Your task to perform on an android device: Search for Italian restaurants on Maps Image 0: 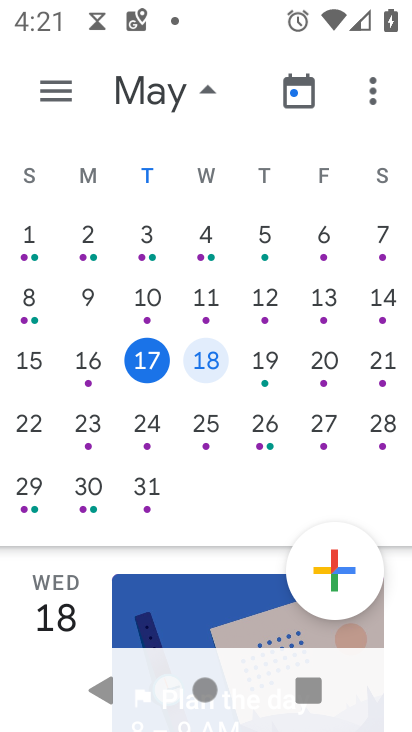
Step 0: press home button
Your task to perform on an android device: Search for Italian restaurants on Maps Image 1: 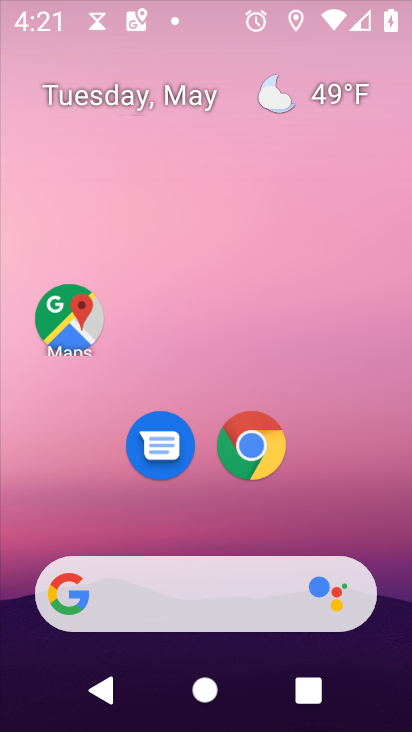
Step 1: drag from (279, 557) to (283, 44)
Your task to perform on an android device: Search for Italian restaurants on Maps Image 2: 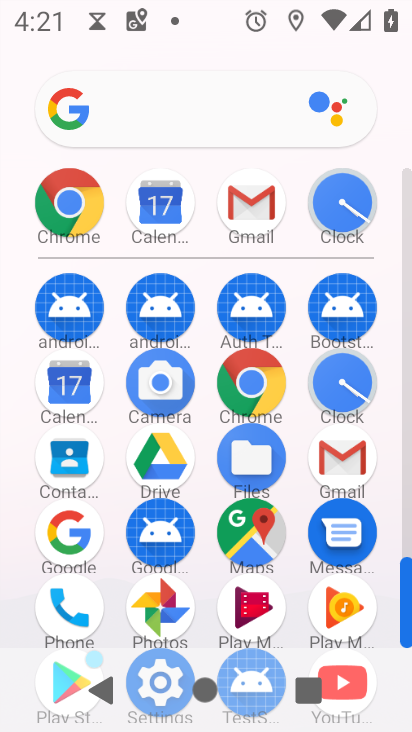
Step 2: click (241, 537)
Your task to perform on an android device: Search for Italian restaurants on Maps Image 3: 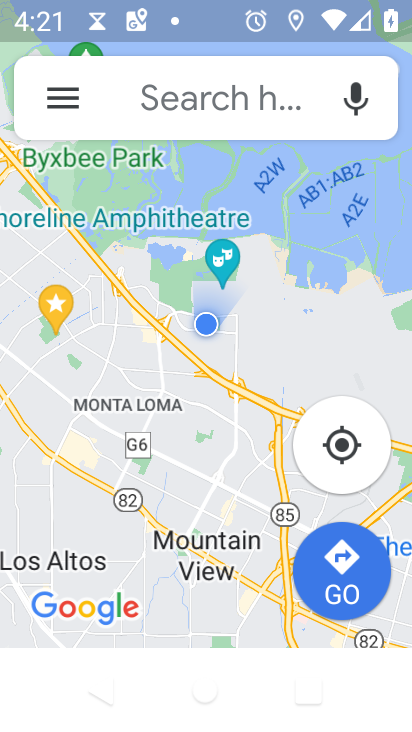
Step 3: click (234, 107)
Your task to perform on an android device: Search for Italian restaurants on Maps Image 4: 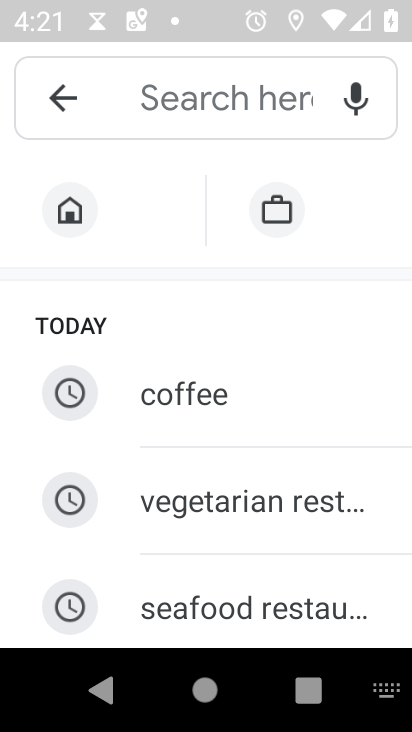
Step 4: type "italian restaurant"
Your task to perform on an android device: Search for Italian restaurants on Maps Image 5: 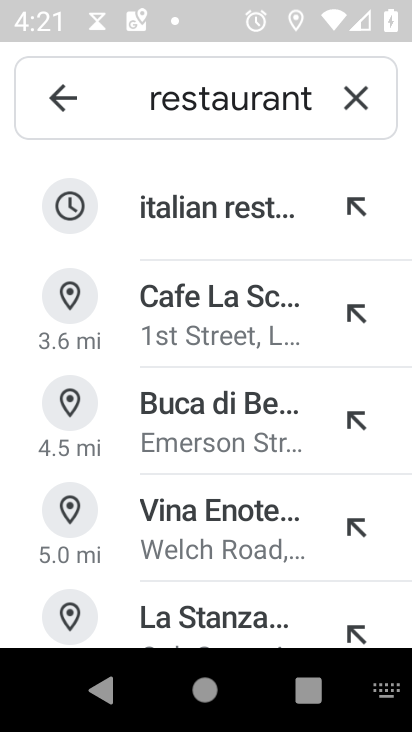
Step 5: click (198, 226)
Your task to perform on an android device: Search for Italian restaurants on Maps Image 6: 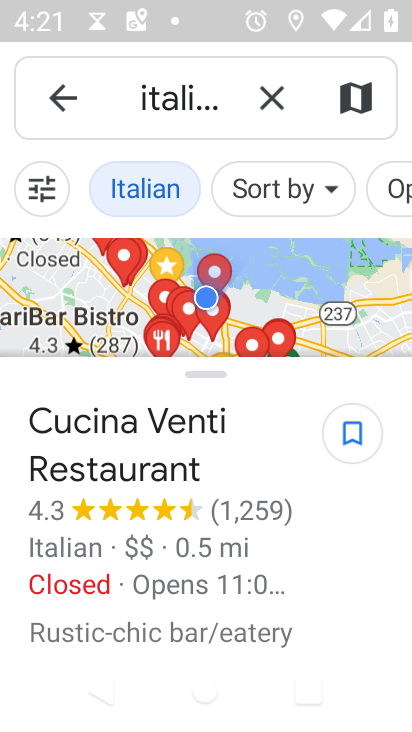
Step 6: task complete